Your task to perform on an android device: change the upload size in google photos Image 0: 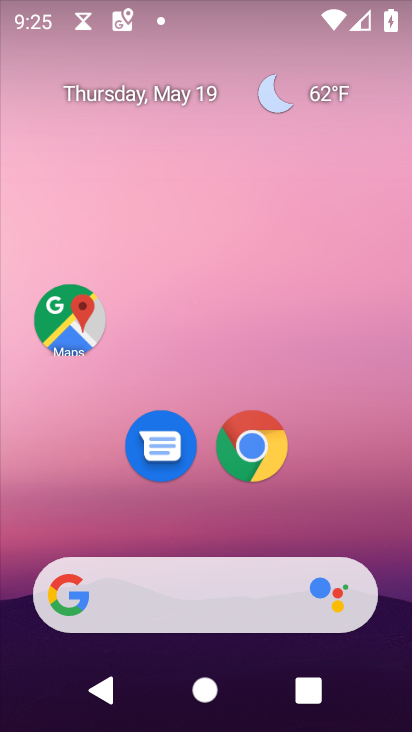
Step 0: drag from (224, 545) to (224, 68)
Your task to perform on an android device: change the upload size in google photos Image 1: 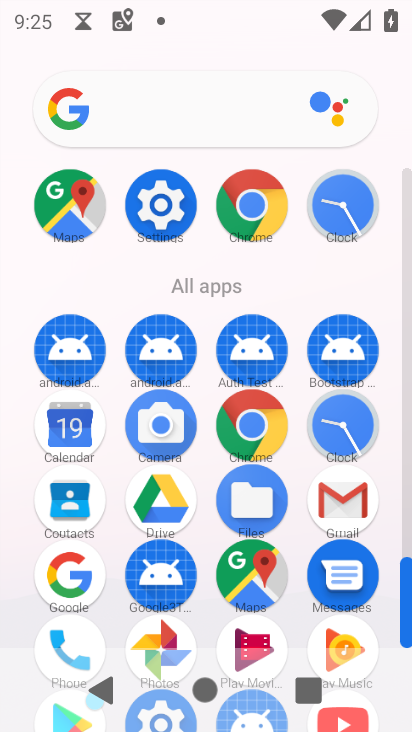
Step 1: click (155, 630)
Your task to perform on an android device: change the upload size in google photos Image 2: 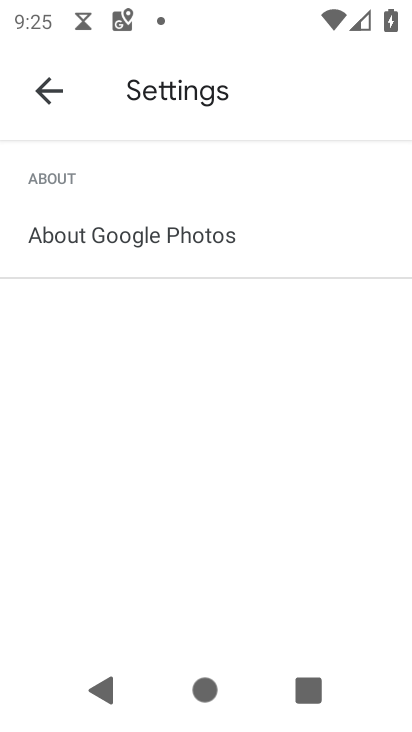
Step 2: click (40, 78)
Your task to perform on an android device: change the upload size in google photos Image 3: 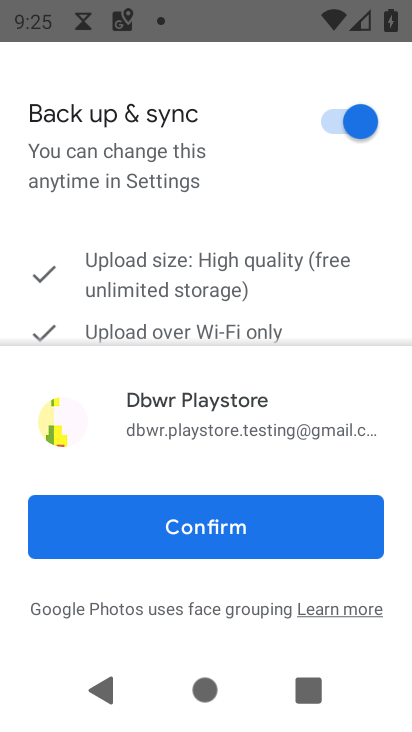
Step 3: click (203, 519)
Your task to perform on an android device: change the upload size in google photos Image 4: 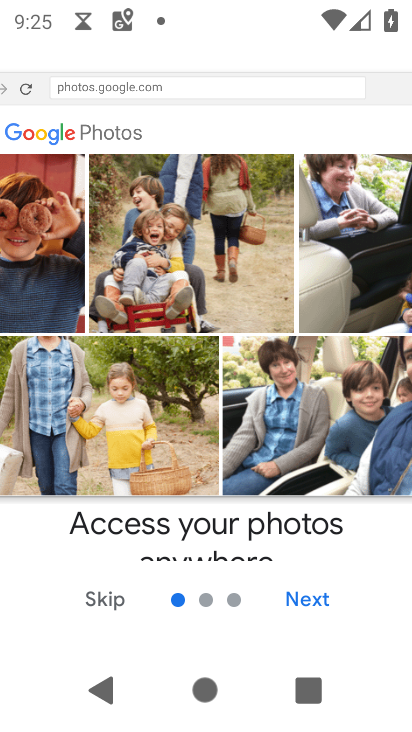
Step 4: click (291, 599)
Your task to perform on an android device: change the upload size in google photos Image 5: 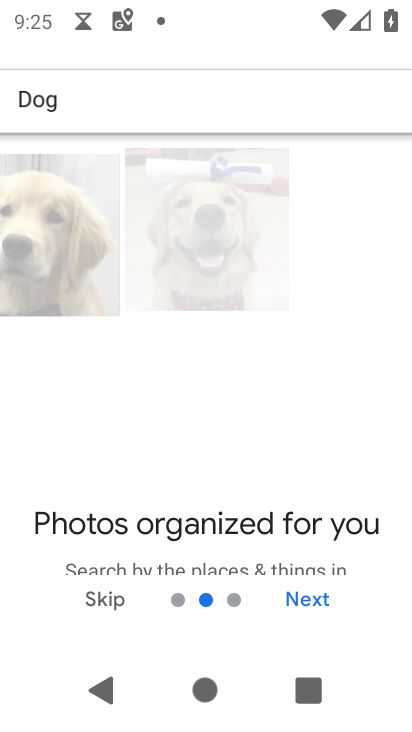
Step 5: click (310, 594)
Your task to perform on an android device: change the upload size in google photos Image 6: 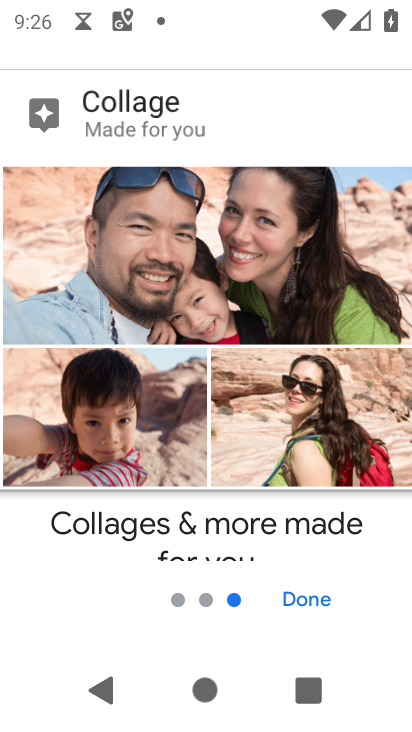
Step 6: click (308, 590)
Your task to perform on an android device: change the upload size in google photos Image 7: 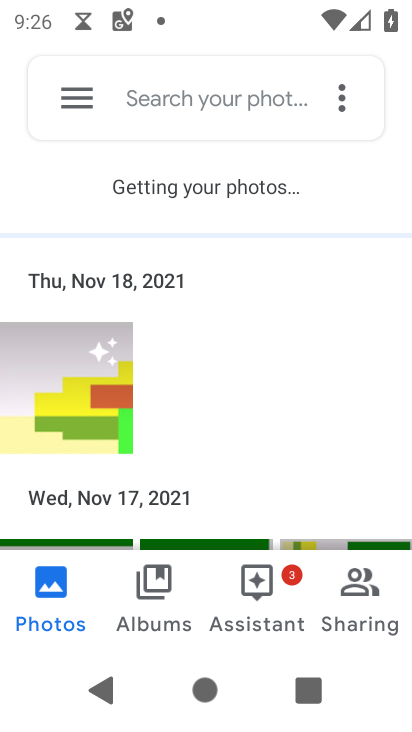
Step 7: click (77, 81)
Your task to perform on an android device: change the upload size in google photos Image 8: 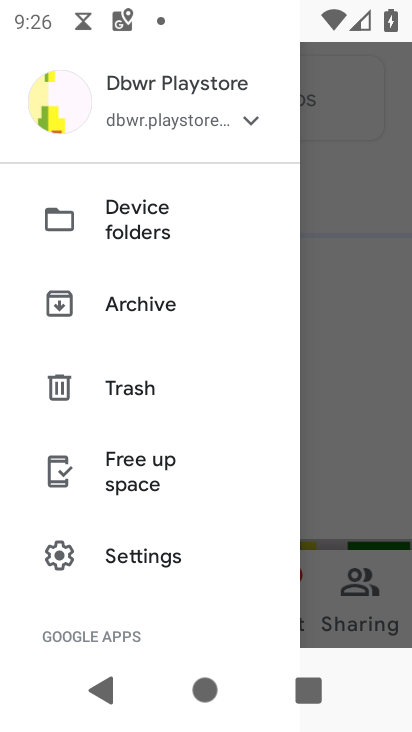
Step 8: click (157, 542)
Your task to perform on an android device: change the upload size in google photos Image 9: 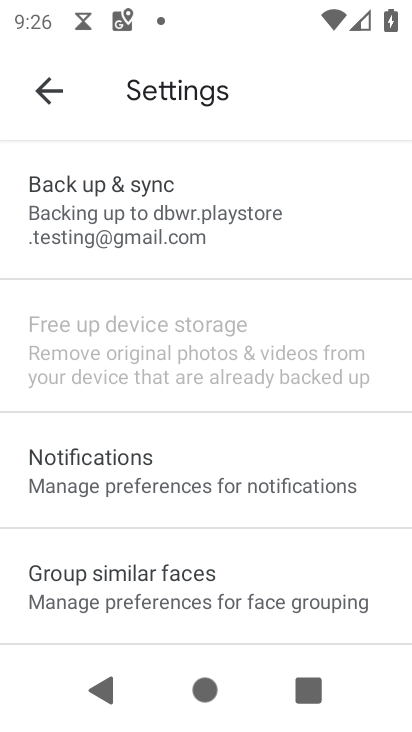
Step 9: click (125, 197)
Your task to perform on an android device: change the upload size in google photos Image 10: 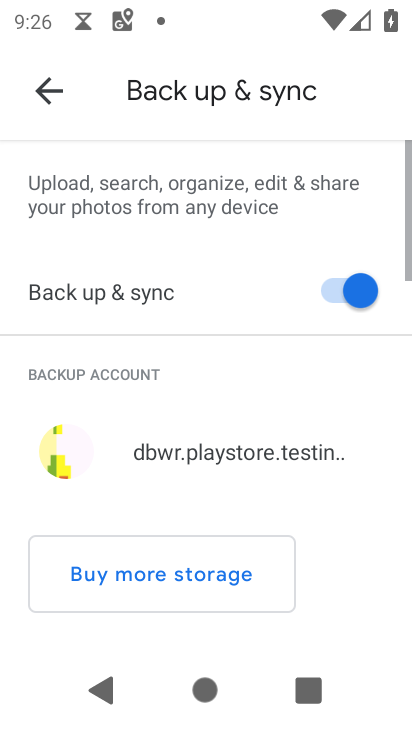
Step 10: drag from (136, 426) to (114, 159)
Your task to perform on an android device: change the upload size in google photos Image 11: 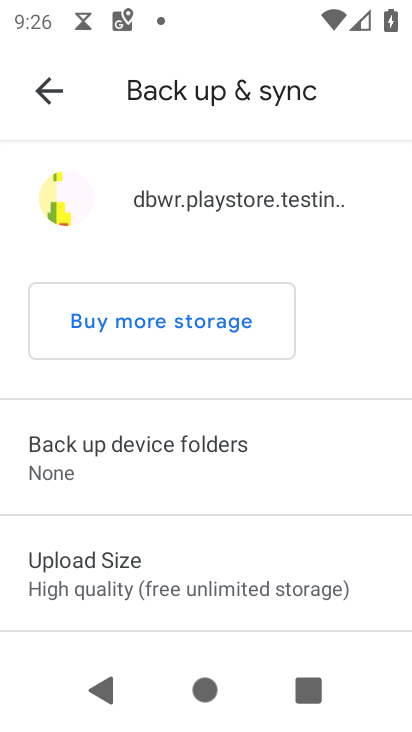
Step 11: click (129, 564)
Your task to perform on an android device: change the upload size in google photos Image 12: 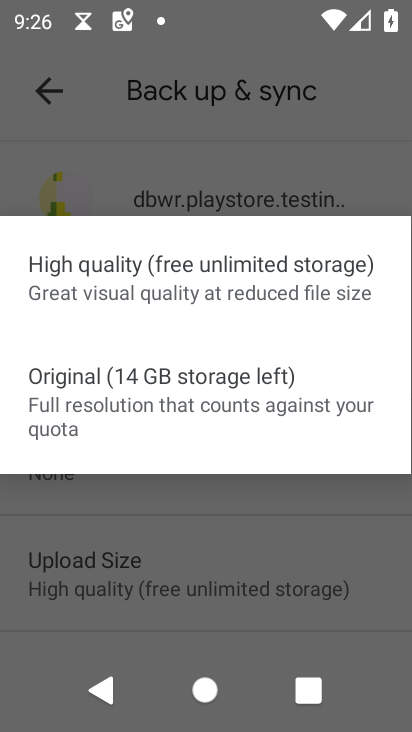
Step 12: click (157, 411)
Your task to perform on an android device: change the upload size in google photos Image 13: 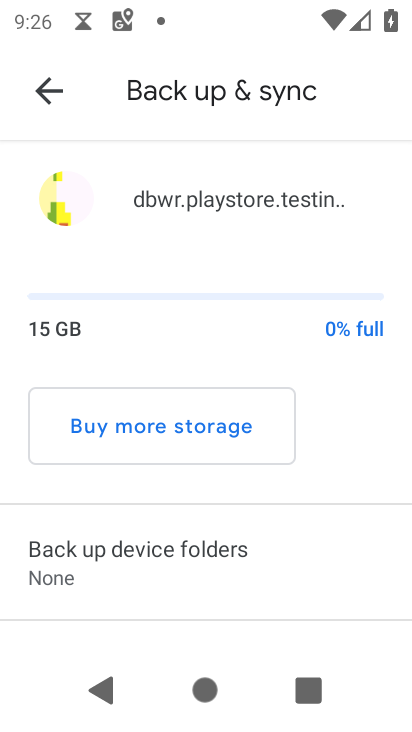
Step 13: task complete